Your task to perform on an android device: Open accessibility settings Image 0: 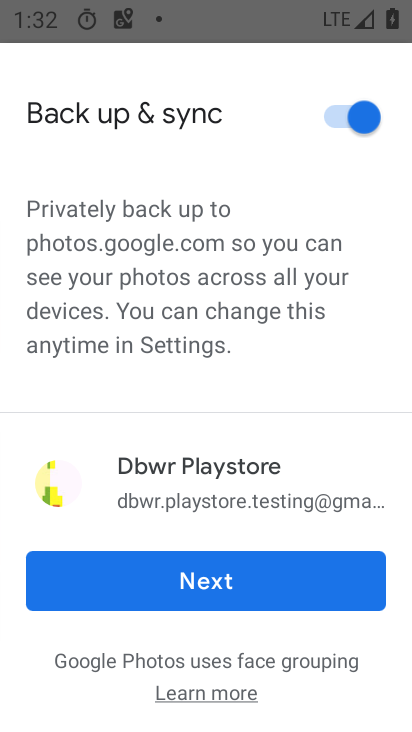
Step 0: press home button
Your task to perform on an android device: Open accessibility settings Image 1: 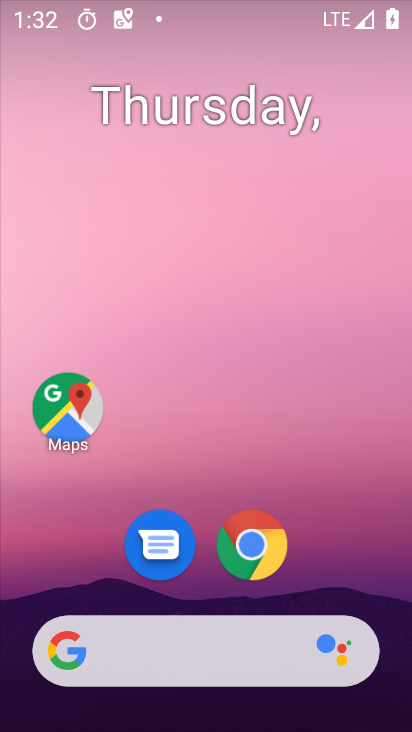
Step 1: drag from (189, 670) to (303, 5)
Your task to perform on an android device: Open accessibility settings Image 2: 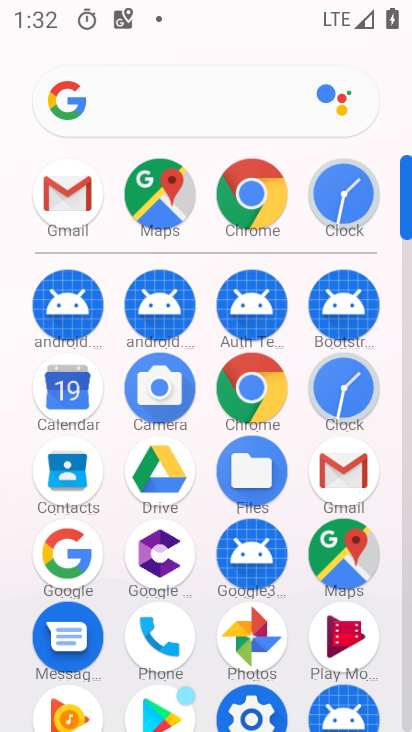
Step 2: click (237, 710)
Your task to perform on an android device: Open accessibility settings Image 3: 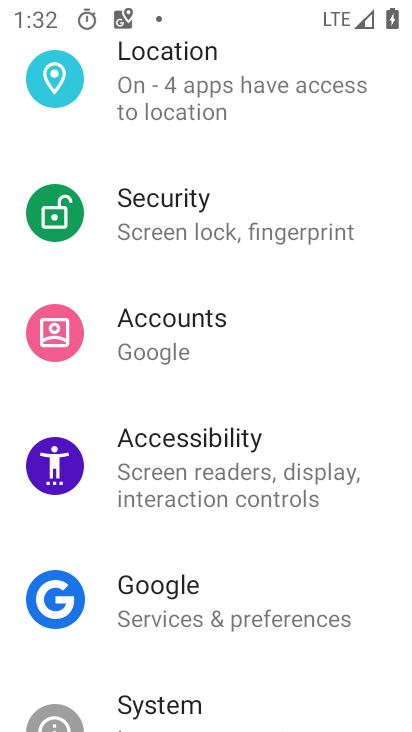
Step 3: drag from (258, 690) to (276, 498)
Your task to perform on an android device: Open accessibility settings Image 4: 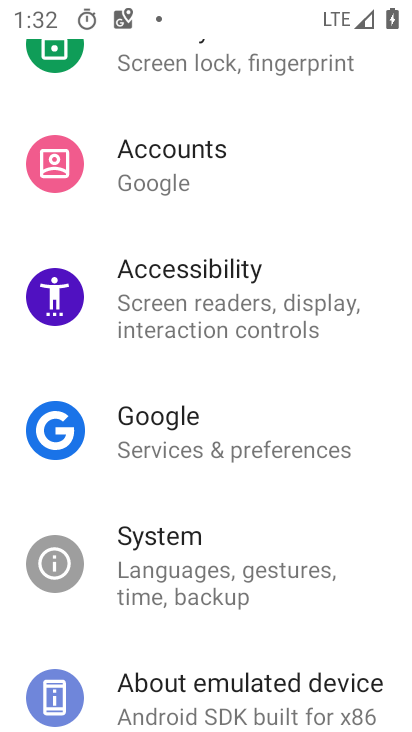
Step 4: click (252, 333)
Your task to perform on an android device: Open accessibility settings Image 5: 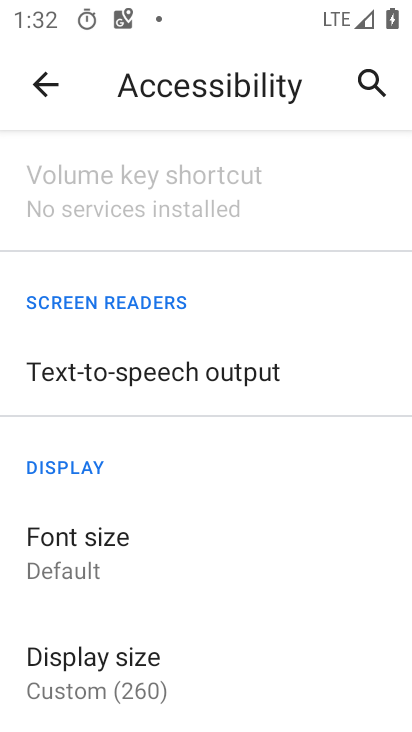
Step 5: task complete